Your task to perform on an android device: toggle priority inbox in the gmail app Image 0: 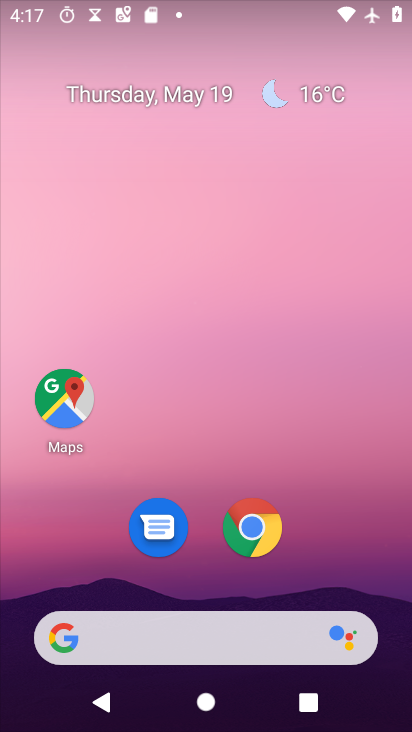
Step 0: drag from (339, 558) to (215, 89)
Your task to perform on an android device: toggle priority inbox in the gmail app Image 1: 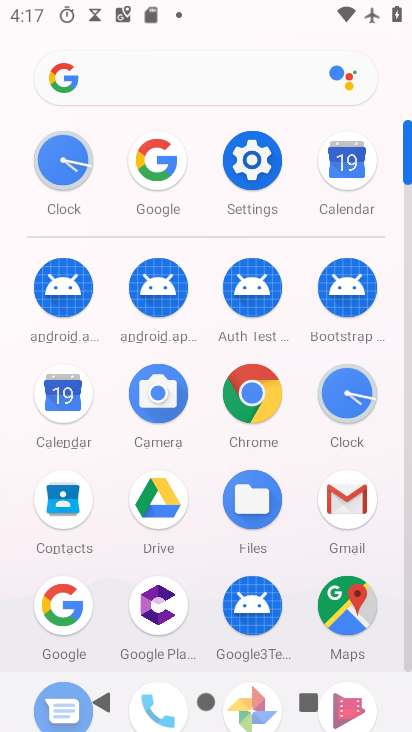
Step 1: click (341, 496)
Your task to perform on an android device: toggle priority inbox in the gmail app Image 2: 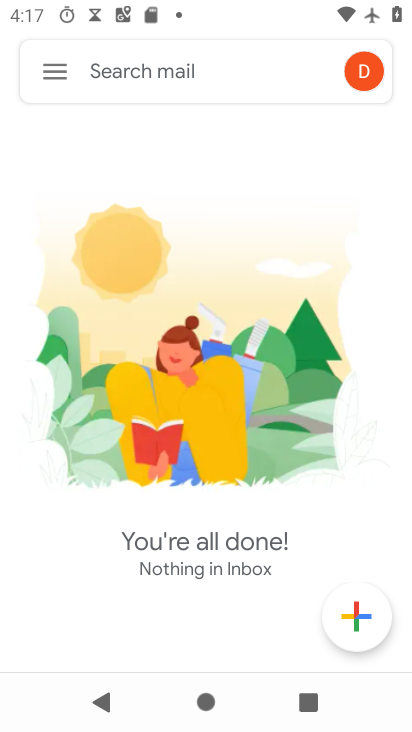
Step 2: click (59, 71)
Your task to perform on an android device: toggle priority inbox in the gmail app Image 3: 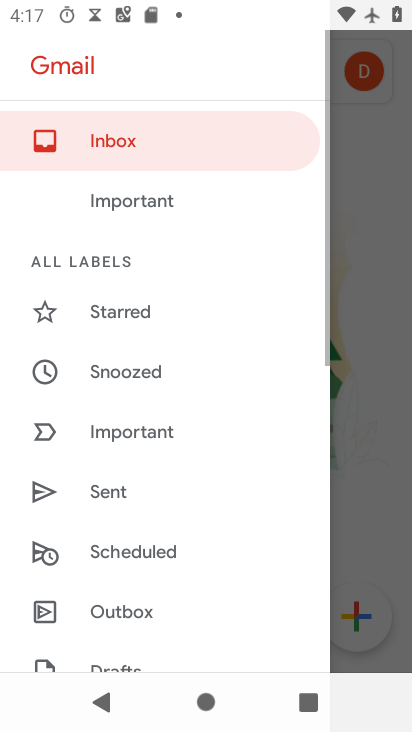
Step 3: drag from (182, 530) to (138, 111)
Your task to perform on an android device: toggle priority inbox in the gmail app Image 4: 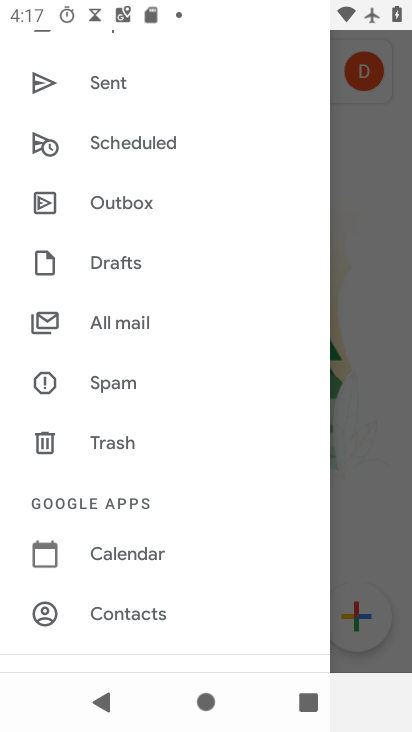
Step 4: drag from (193, 566) to (168, 175)
Your task to perform on an android device: toggle priority inbox in the gmail app Image 5: 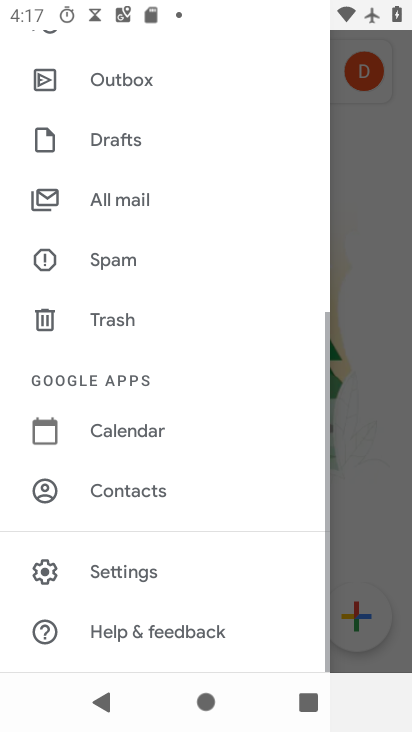
Step 5: click (153, 558)
Your task to perform on an android device: toggle priority inbox in the gmail app Image 6: 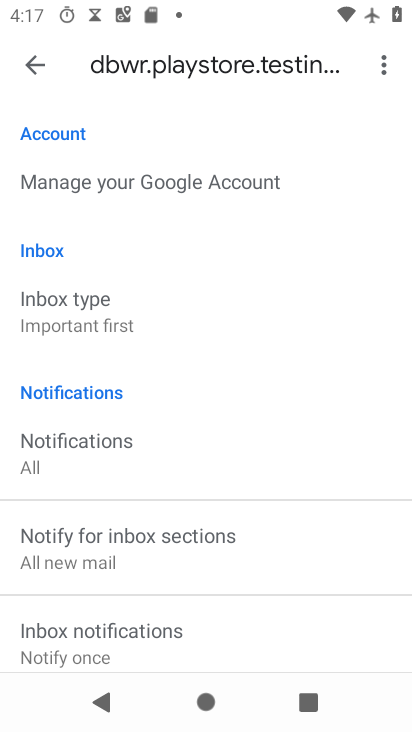
Step 6: click (145, 328)
Your task to perform on an android device: toggle priority inbox in the gmail app Image 7: 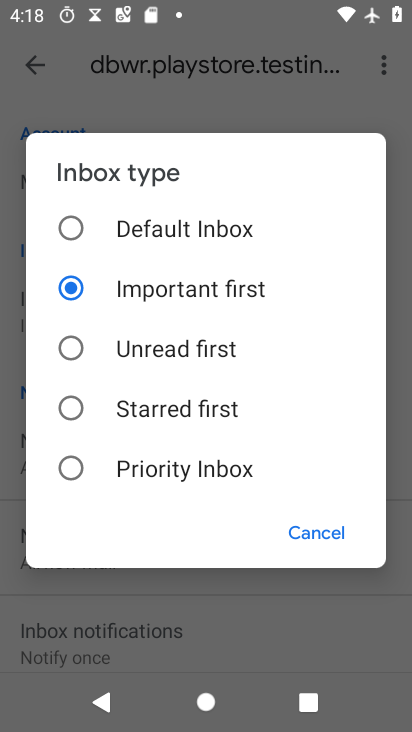
Step 7: click (189, 478)
Your task to perform on an android device: toggle priority inbox in the gmail app Image 8: 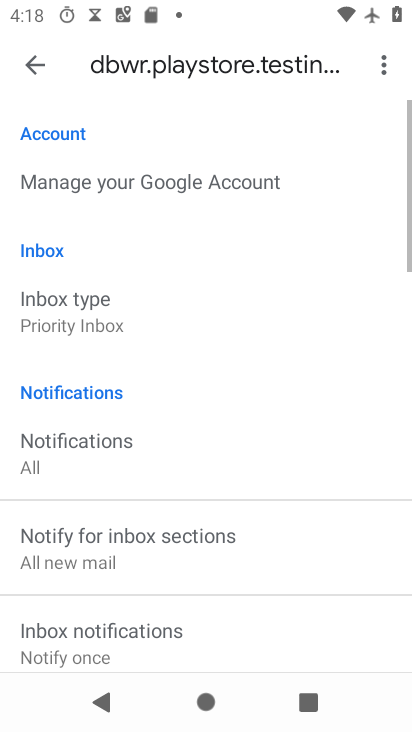
Step 8: task complete